Your task to perform on an android device: toggle improve location accuracy Image 0: 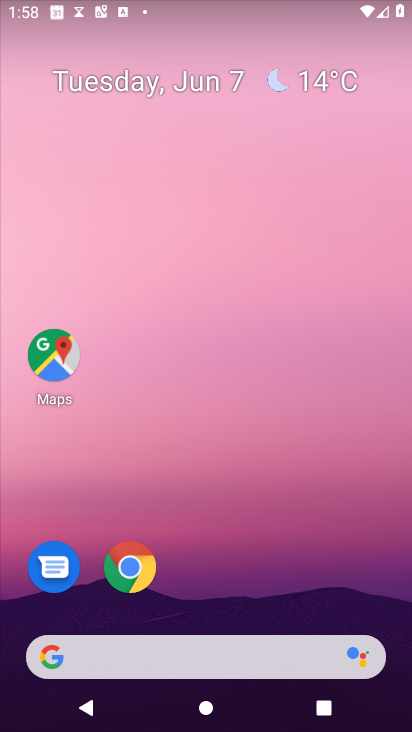
Step 0: drag from (319, 639) to (325, 3)
Your task to perform on an android device: toggle improve location accuracy Image 1: 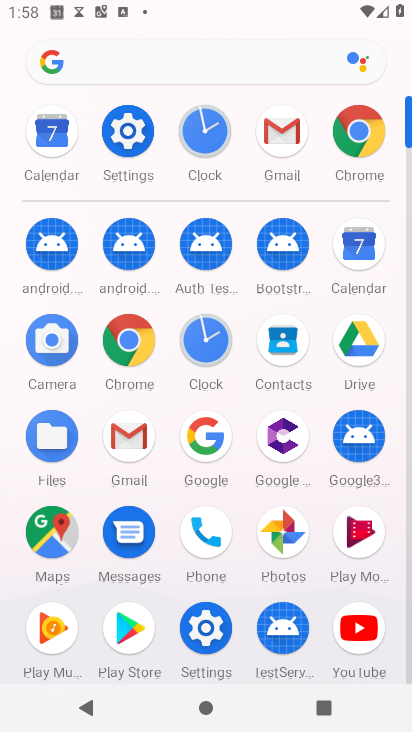
Step 1: click (140, 139)
Your task to perform on an android device: toggle improve location accuracy Image 2: 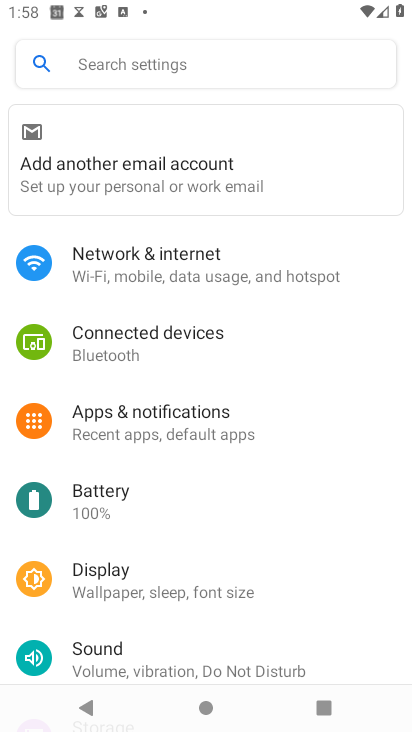
Step 2: drag from (234, 614) to (271, 98)
Your task to perform on an android device: toggle improve location accuracy Image 3: 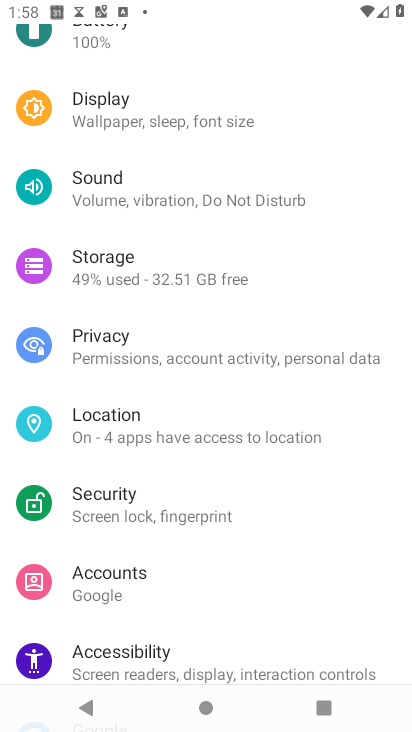
Step 3: click (184, 424)
Your task to perform on an android device: toggle improve location accuracy Image 4: 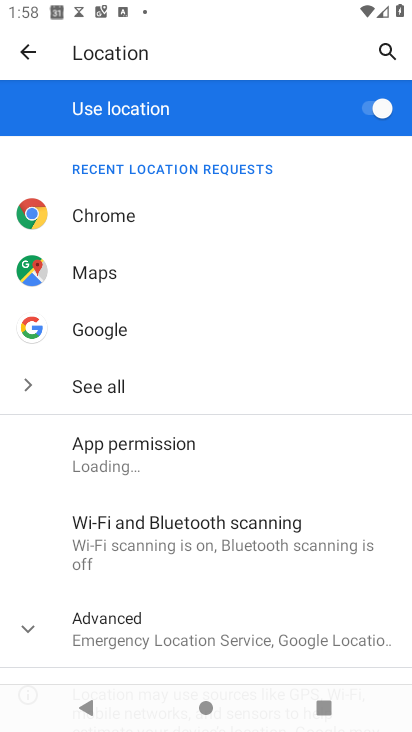
Step 4: click (191, 629)
Your task to perform on an android device: toggle improve location accuracy Image 5: 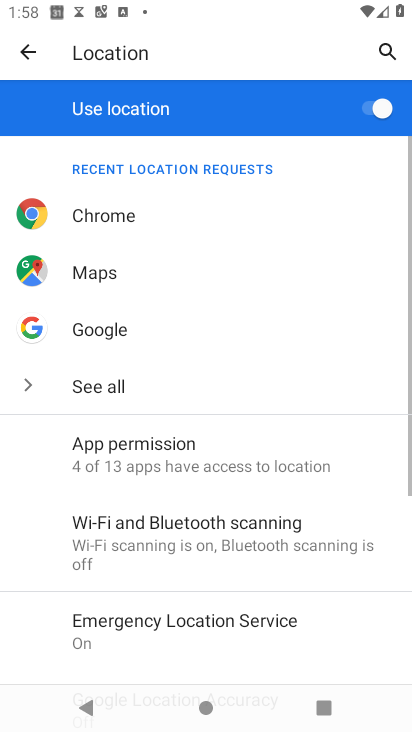
Step 5: drag from (211, 643) to (232, 343)
Your task to perform on an android device: toggle improve location accuracy Image 6: 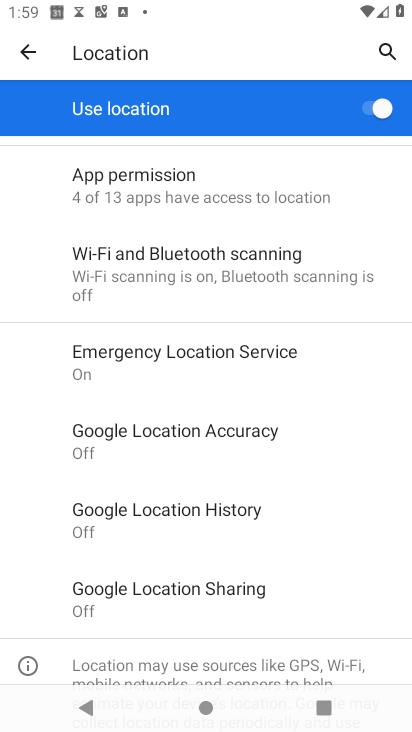
Step 6: click (233, 455)
Your task to perform on an android device: toggle improve location accuracy Image 7: 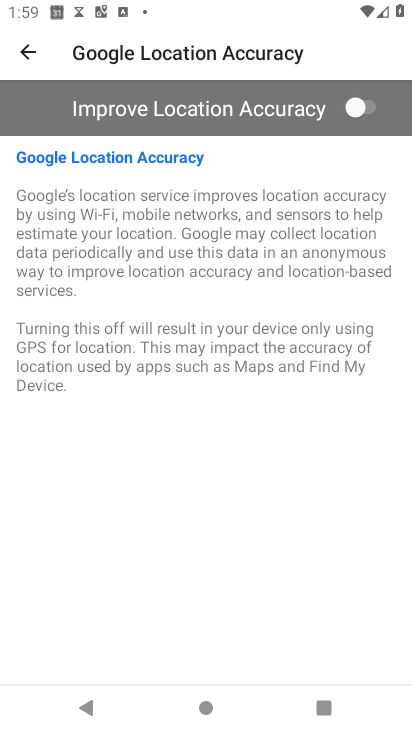
Step 7: click (368, 107)
Your task to perform on an android device: toggle improve location accuracy Image 8: 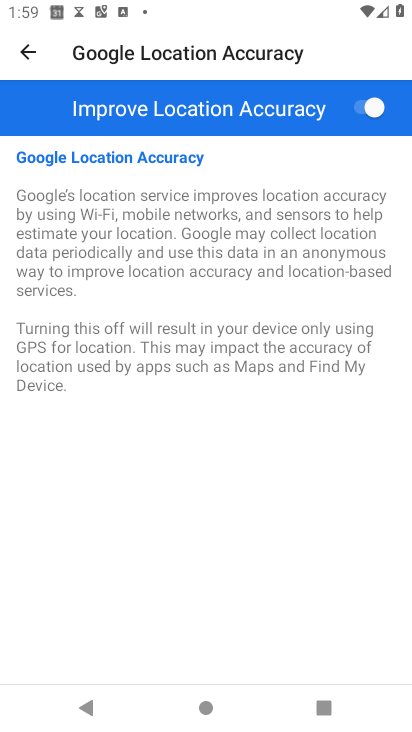
Step 8: task complete